Your task to perform on an android device: remove spam from my inbox in the gmail app Image 0: 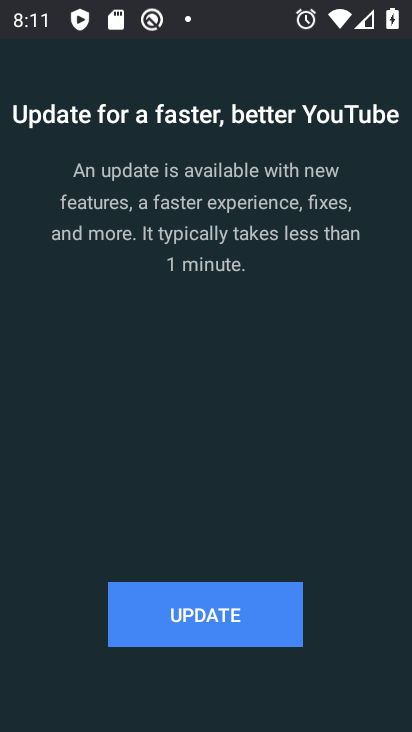
Step 0: press home button
Your task to perform on an android device: remove spam from my inbox in the gmail app Image 1: 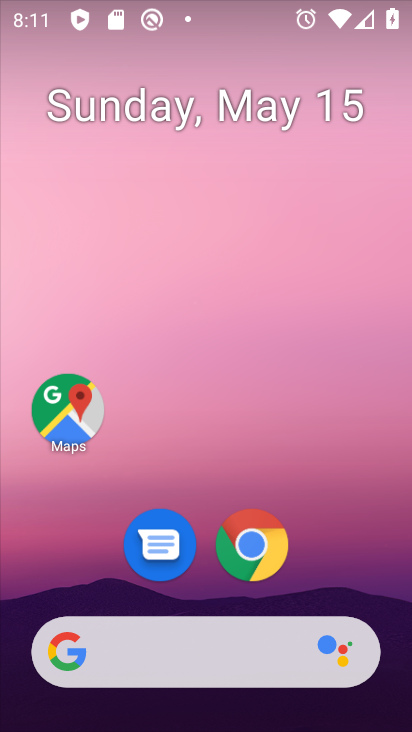
Step 1: drag from (344, 569) to (380, 94)
Your task to perform on an android device: remove spam from my inbox in the gmail app Image 2: 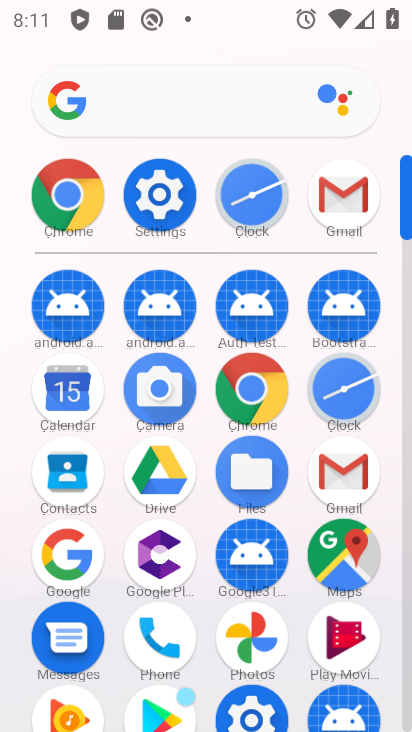
Step 2: click (345, 483)
Your task to perform on an android device: remove spam from my inbox in the gmail app Image 3: 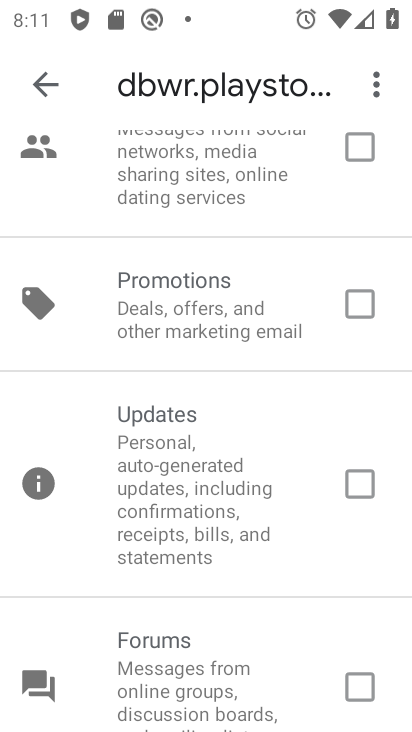
Step 3: click (31, 90)
Your task to perform on an android device: remove spam from my inbox in the gmail app Image 4: 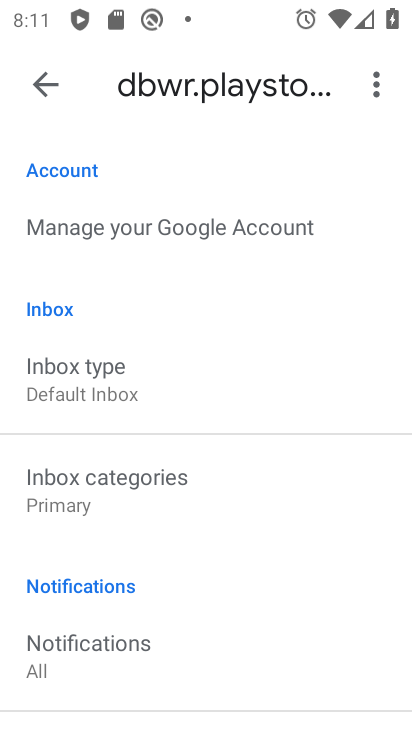
Step 4: drag from (302, 588) to (330, 374)
Your task to perform on an android device: remove spam from my inbox in the gmail app Image 5: 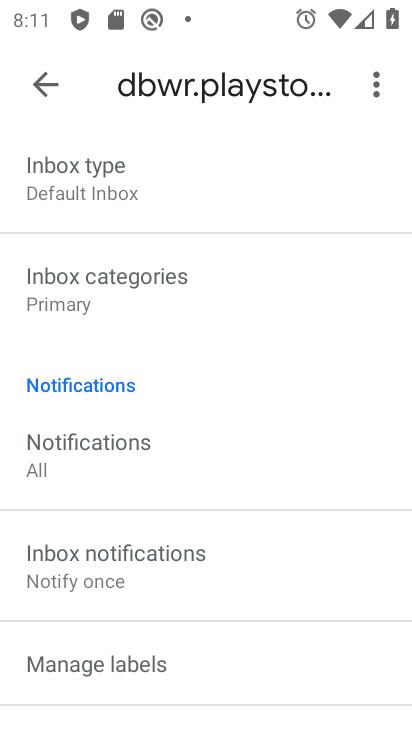
Step 5: click (34, 78)
Your task to perform on an android device: remove spam from my inbox in the gmail app Image 6: 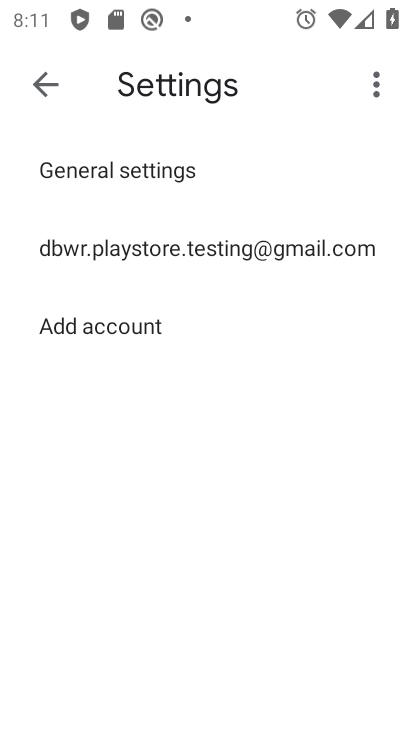
Step 6: click (47, 80)
Your task to perform on an android device: remove spam from my inbox in the gmail app Image 7: 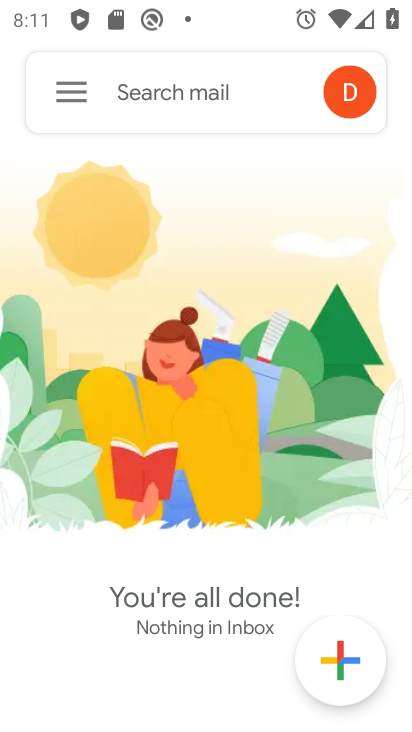
Step 7: click (78, 89)
Your task to perform on an android device: remove spam from my inbox in the gmail app Image 8: 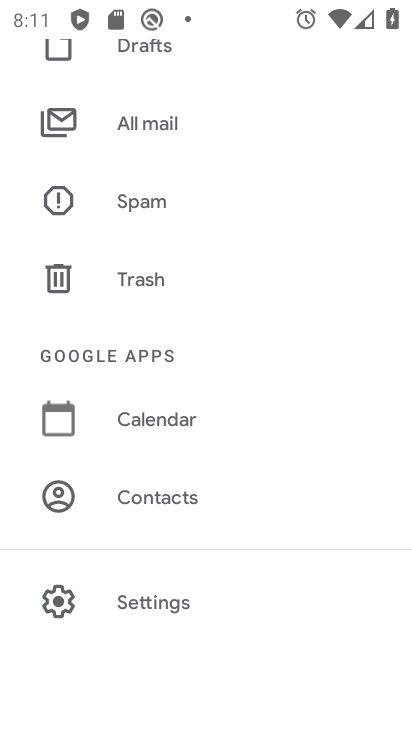
Step 8: drag from (312, 226) to (301, 485)
Your task to perform on an android device: remove spam from my inbox in the gmail app Image 9: 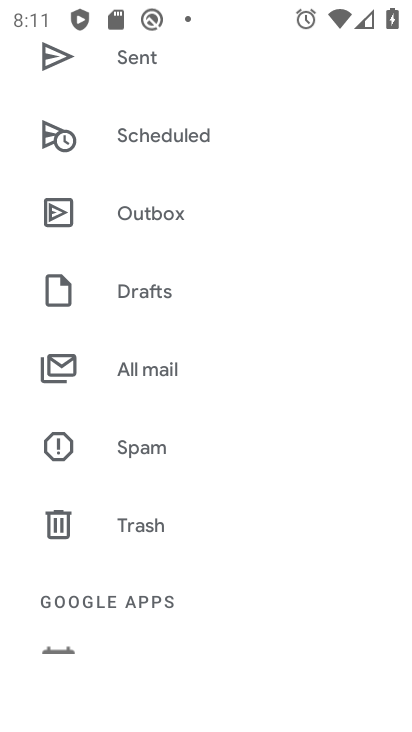
Step 9: drag from (308, 186) to (306, 489)
Your task to perform on an android device: remove spam from my inbox in the gmail app Image 10: 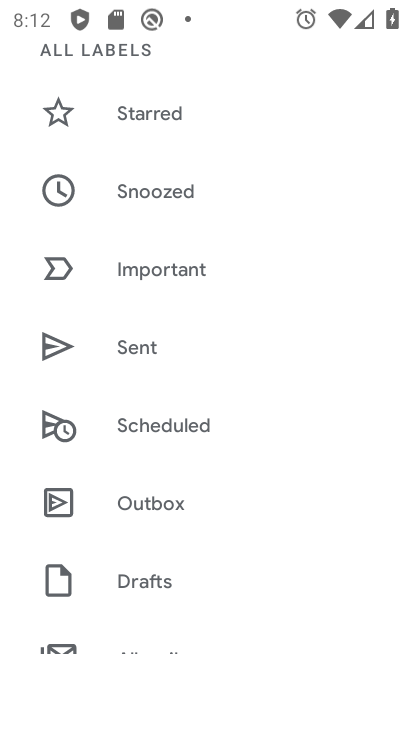
Step 10: drag from (321, 148) to (303, 468)
Your task to perform on an android device: remove spam from my inbox in the gmail app Image 11: 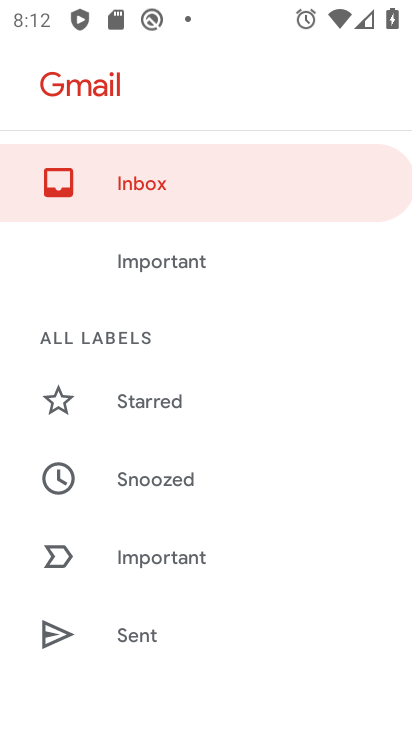
Step 11: drag from (332, 263) to (316, 507)
Your task to perform on an android device: remove spam from my inbox in the gmail app Image 12: 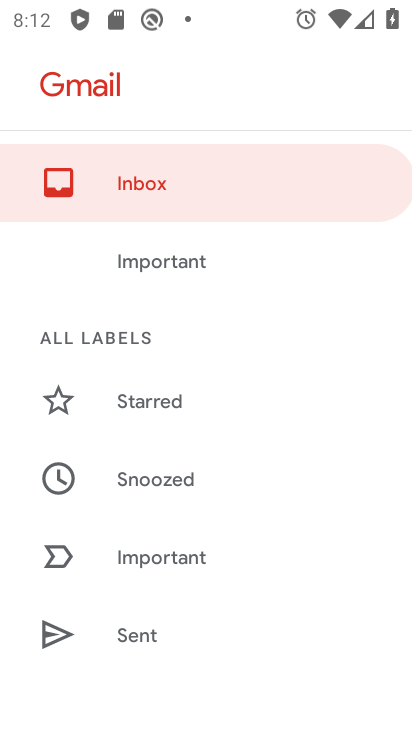
Step 12: drag from (334, 637) to (339, 360)
Your task to perform on an android device: remove spam from my inbox in the gmail app Image 13: 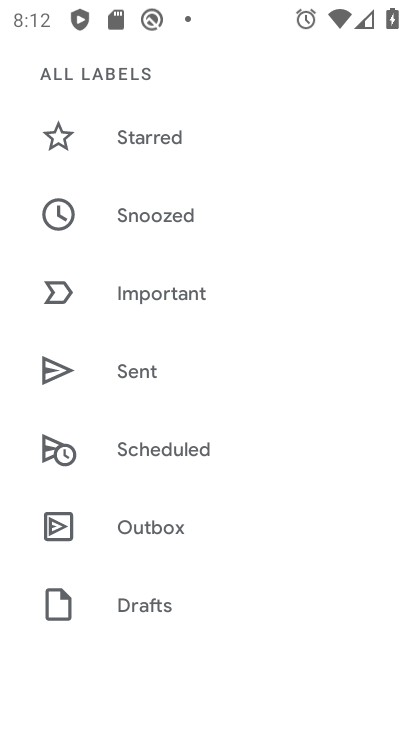
Step 13: drag from (314, 592) to (311, 311)
Your task to perform on an android device: remove spam from my inbox in the gmail app Image 14: 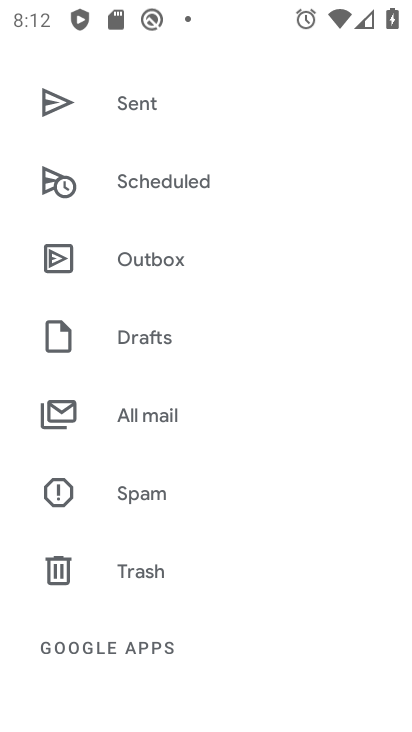
Step 14: click (146, 498)
Your task to perform on an android device: remove spam from my inbox in the gmail app Image 15: 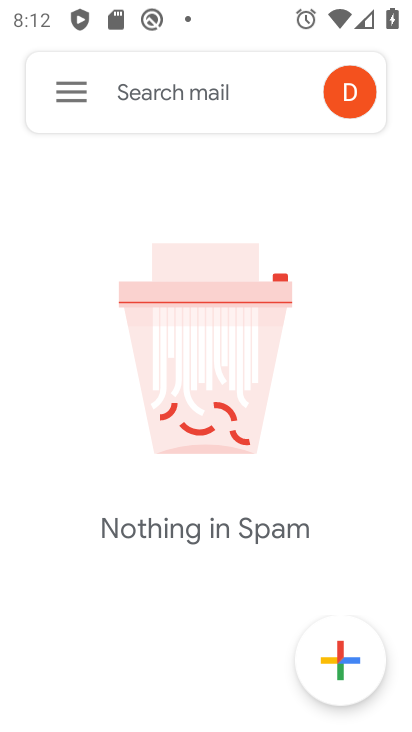
Step 15: task complete